Your task to perform on an android device: Open maps Image 0: 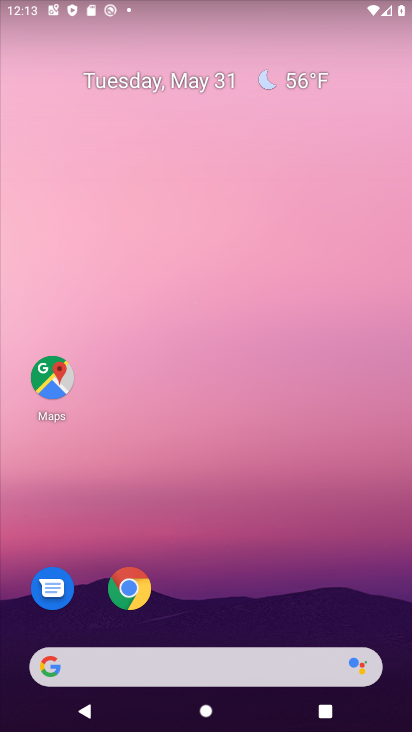
Step 0: click (41, 384)
Your task to perform on an android device: Open maps Image 1: 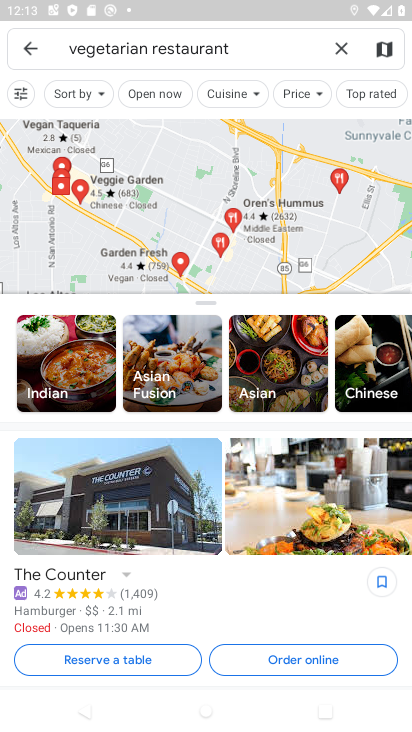
Step 1: task complete